Your task to perform on an android device: turn off sleep mode Image 0: 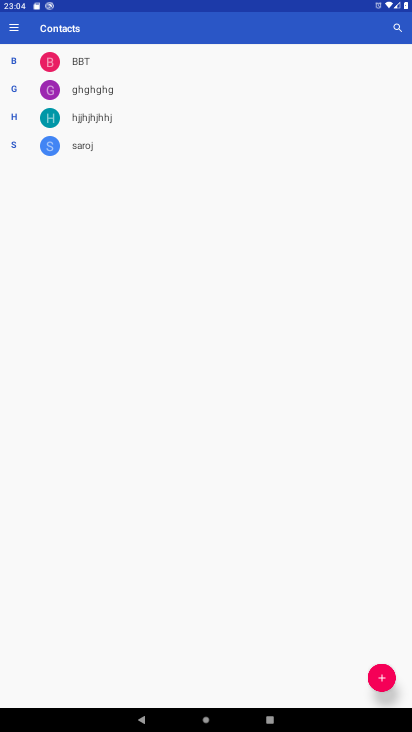
Step 0: press home button
Your task to perform on an android device: turn off sleep mode Image 1: 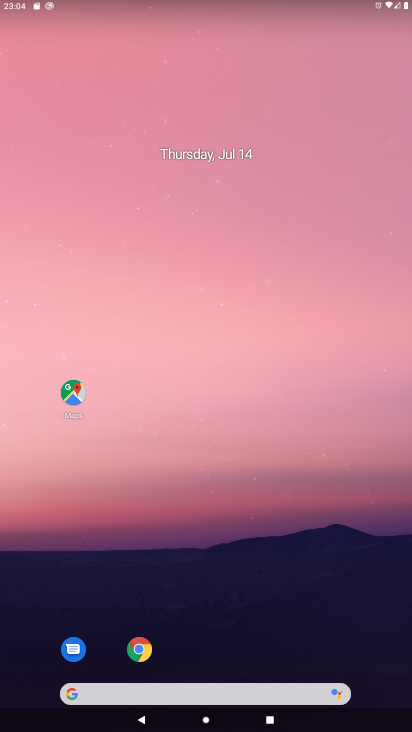
Step 1: drag from (174, 720) to (271, 6)
Your task to perform on an android device: turn off sleep mode Image 2: 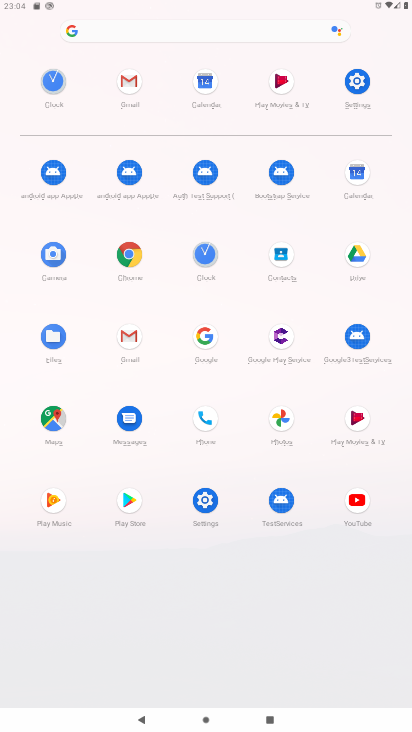
Step 2: click (369, 75)
Your task to perform on an android device: turn off sleep mode Image 3: 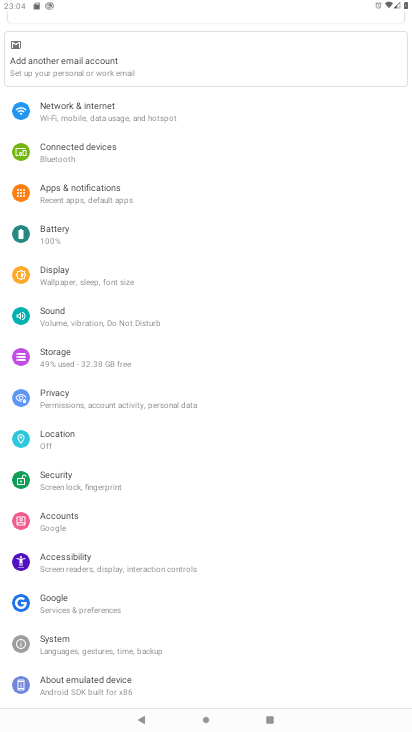
Step 3: click (83, 269)
Your task to perform on an android device: turn off sleep mode Image 4: 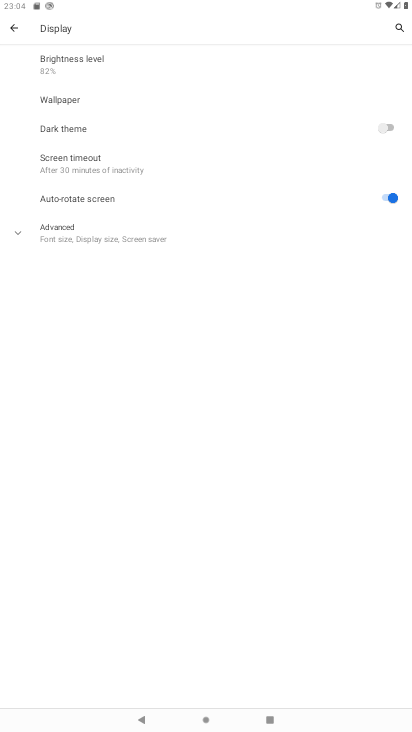
Step 4: task complete